Your task to perform on an android device: change the clock display to analog Image 0: 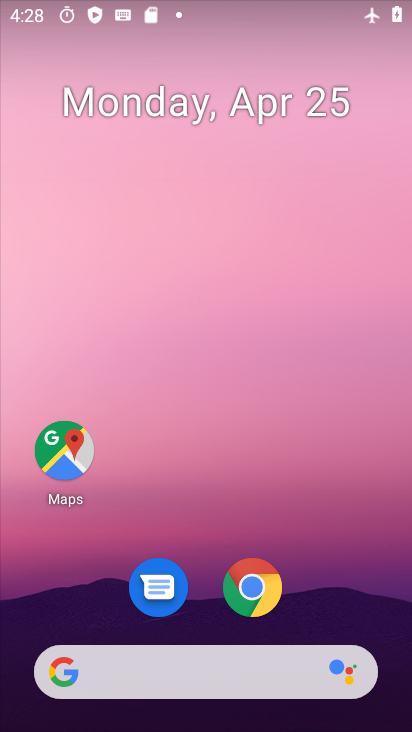
Step 0: drag from (343, 543) to (298, 147)
Your task to perform on an android device: change the clock display to analog Image 1: 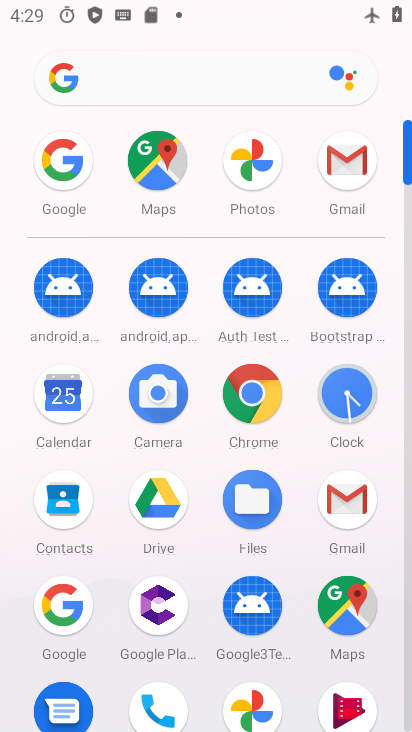
Step 1: click (344, 393)
Your task to perform on an android device: change the clock display to analog Image 2: 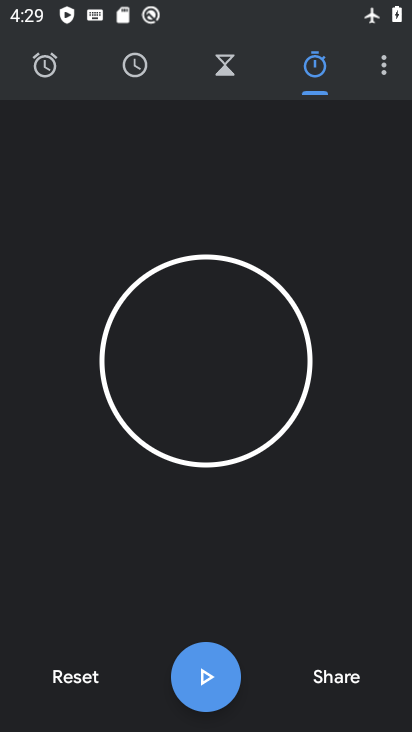
Step 2: click (385, 67)
Your task to perform on an android device: change the clock display to analog Image 3: 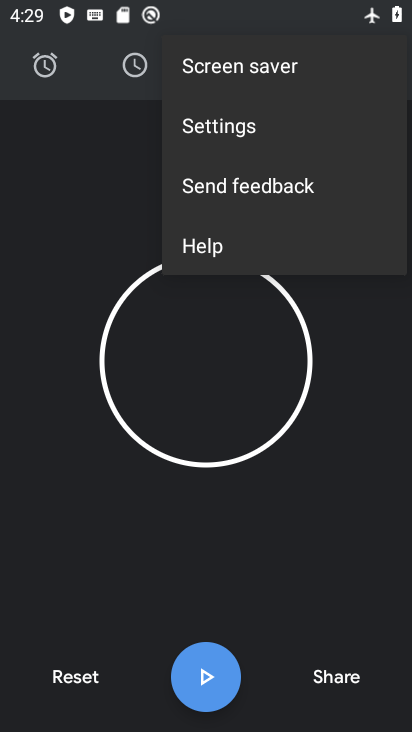
Step 3: click (254, 123)
Your task to perform on an android device: change the clock display to analog Image 4: 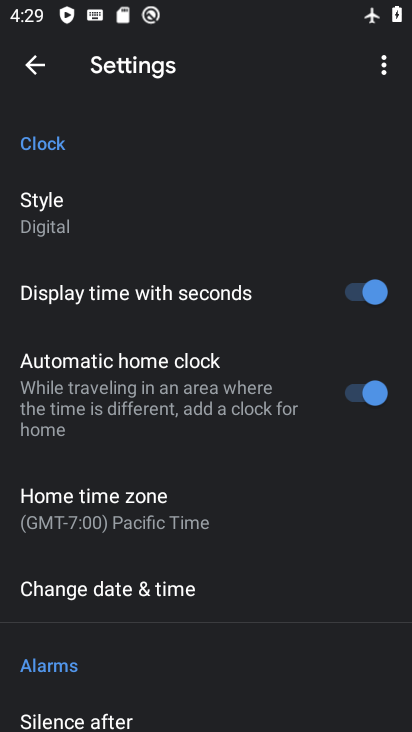
Step 4: click (40, 205)
Your task to perform on an android device: change the clock display to analog Image 5: 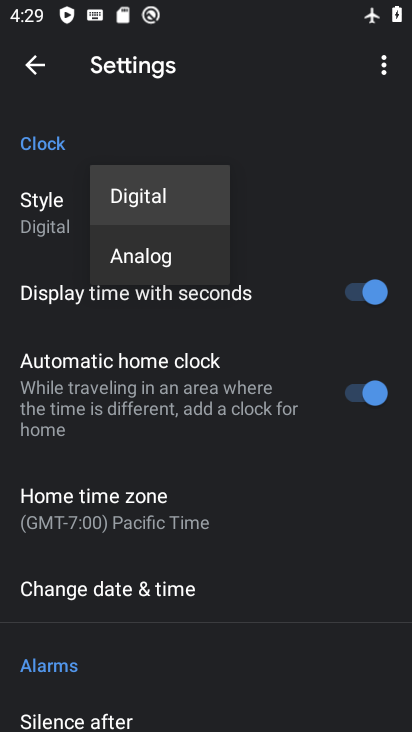
Step 5: task complete